Your task to perform on an android device: Go to ESPN.com Image 0: 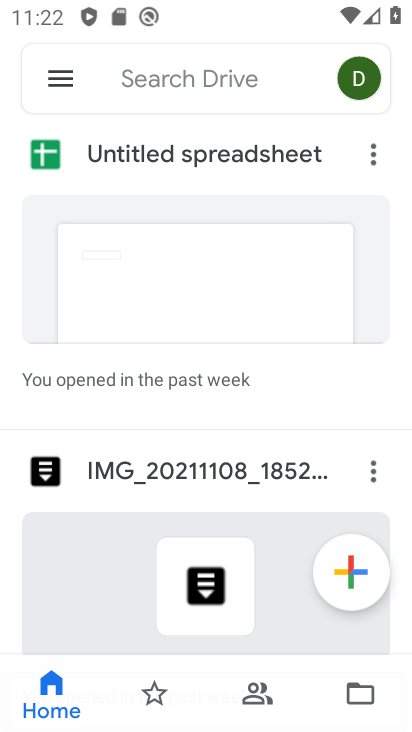
Step 0: task complete